Your task to perform on an android device: turn on airplane mode Image 0: 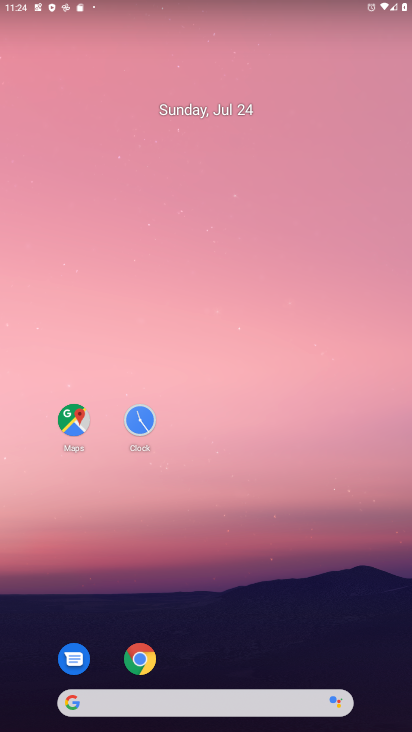
Step 0: drag from (376, 701) to (382, 119)
Your task to perform on an android device: turn on airplane mode Image 1: 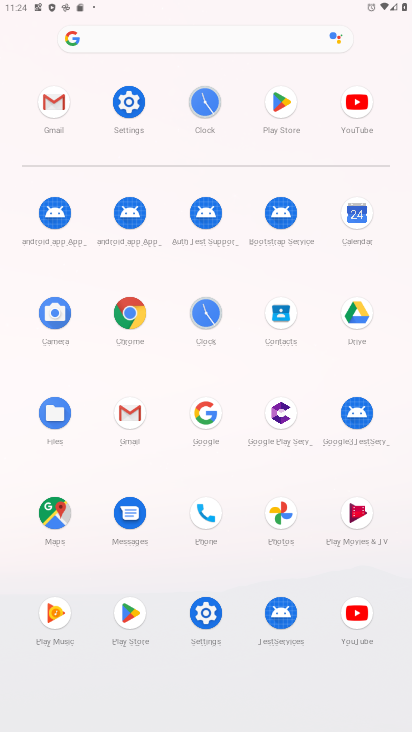
Step 1: click (131, 101)
Your task to perform on an android device: turn on airplane mode Image 2: 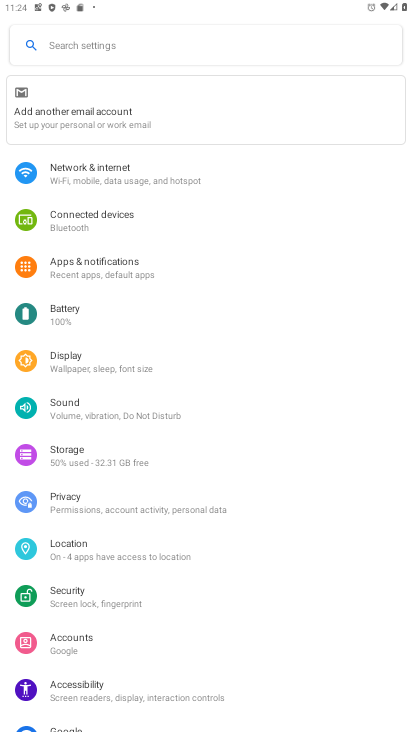
Step 2: click (95, 176)
Your task to perform on an android device: turn on airplane mode Image 3: 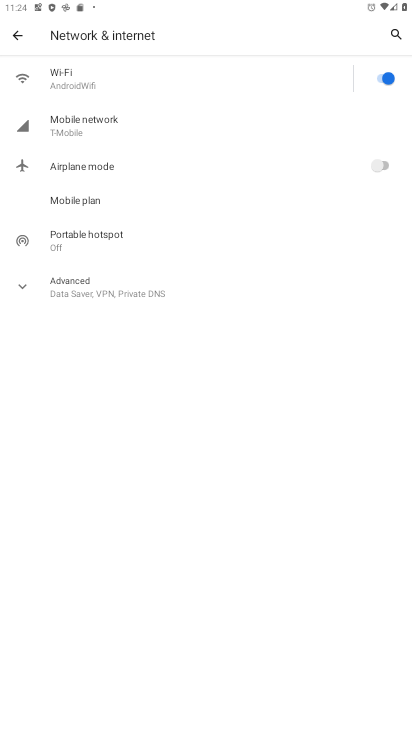
Step 3: click (384, 170)
Your task to perform on an android device: turn on airplane mode Image 4: 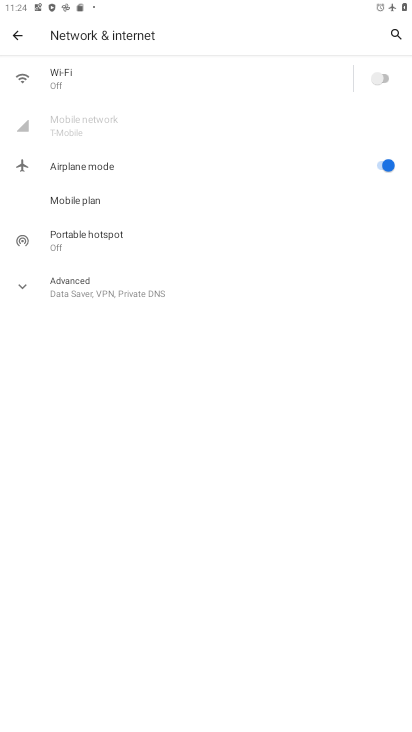
Step 4: task complete